Your task to perform on an android device: What's the weather? Image 0: 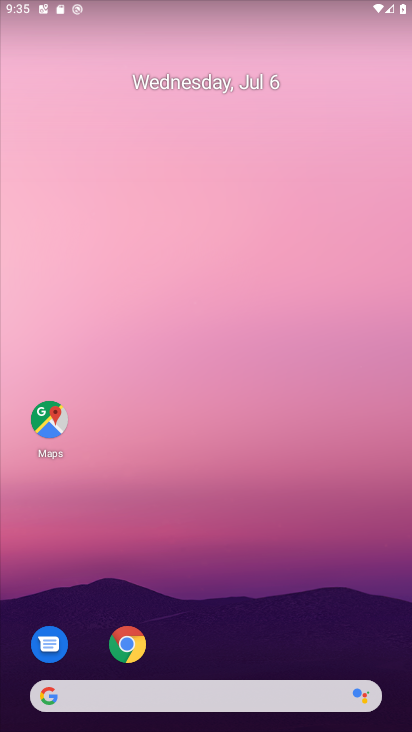
Step 0: drag from (223, 685) to (283, 90)
Your task to perform on an android device: What's the weather? Image 1: 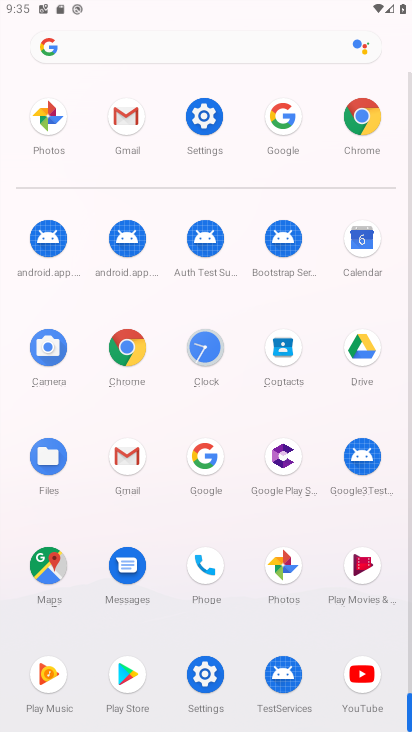
Step 1: drag from (258, 514) to (224, 324)
Your task to perform on an android device: What's the weather? Image 2: 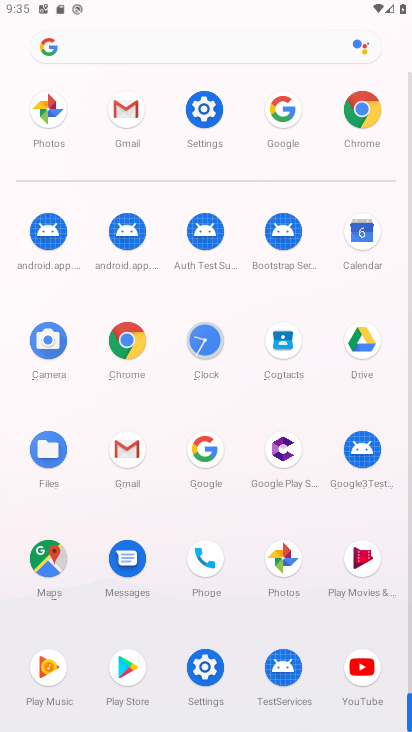
Step 2: click (211, 467)
Your task to perform on an android device: What's the weather? Image 3: 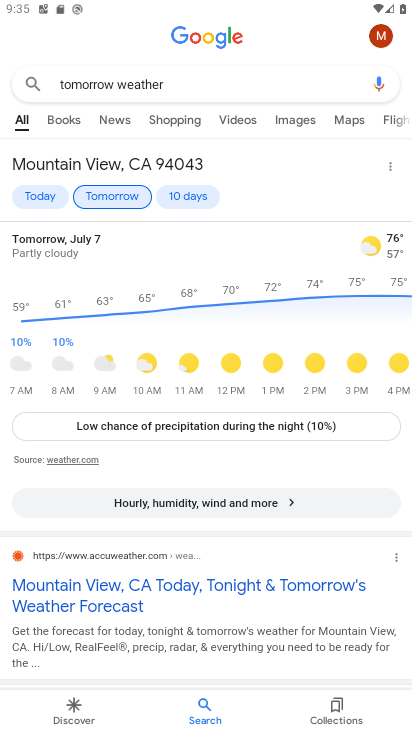
Step 3: task complete